Your task to perform on an android device: Go to Yahoo.com Image 0: 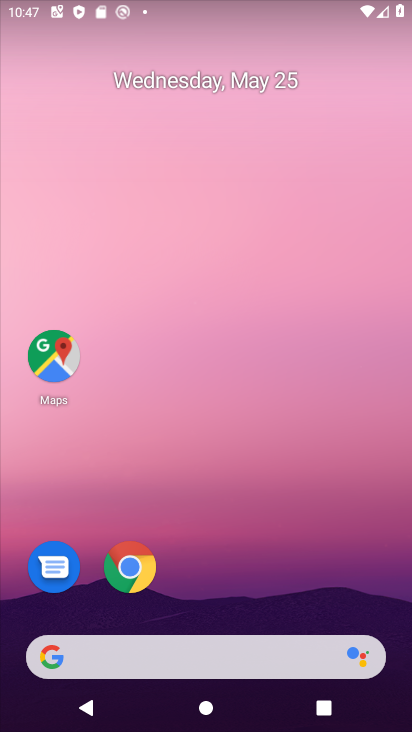
Step 0: drag from (260, 691) to (152, 137)
Your task to perform on an android device: Go to Yahoo.com Image 1: 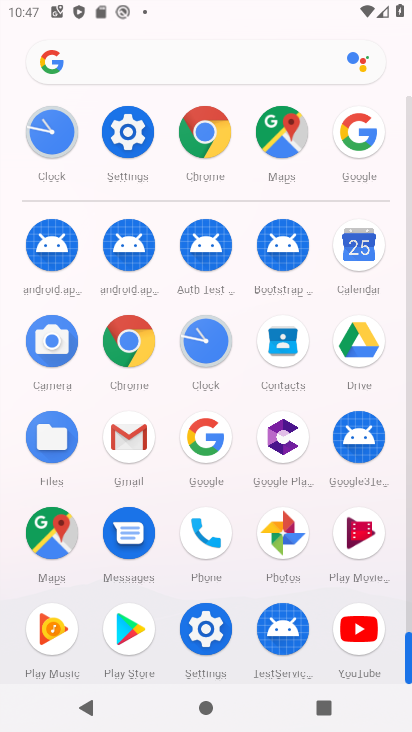
Step 1: click (205, 131)
Your task to perform on an android device: Go to Yahoo.com Image 2: 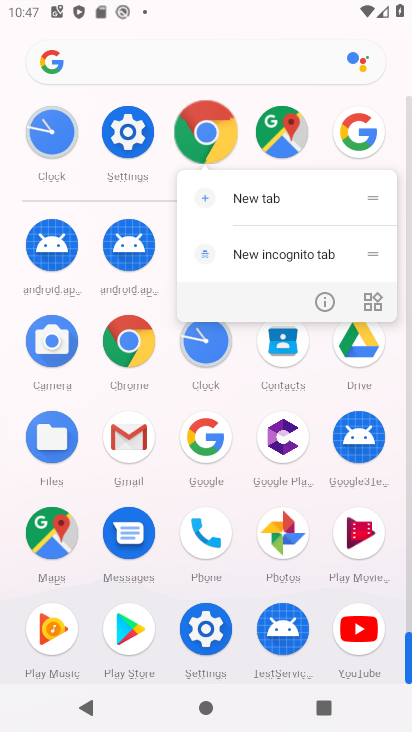
Step 2: click (203, 129)
Your task to perform on an android device: Go to Yahoo.com Image 3: 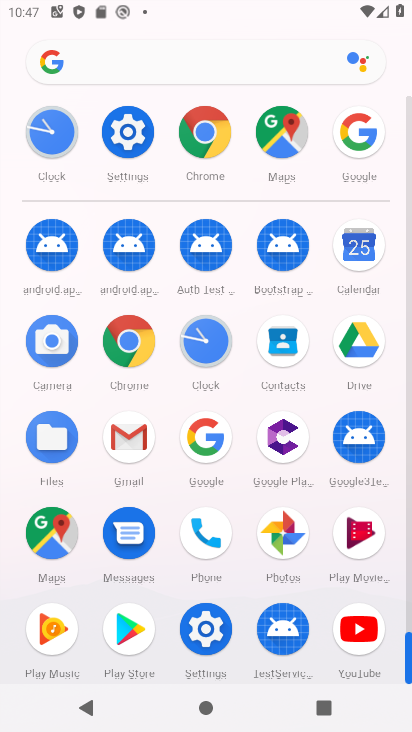
Step 3: click (204, 128)
Your task to perform on an android device: Go to Yahoo.com Image 4: 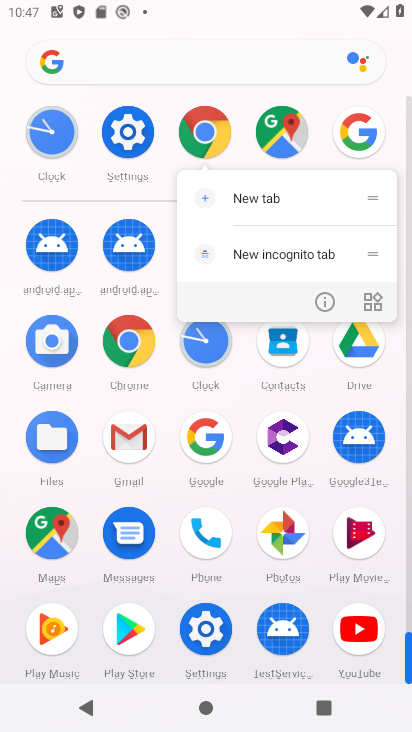
Step 4: click (200, 151)
Your task to perform on an android device: Go to Yahoo.com Image 5: 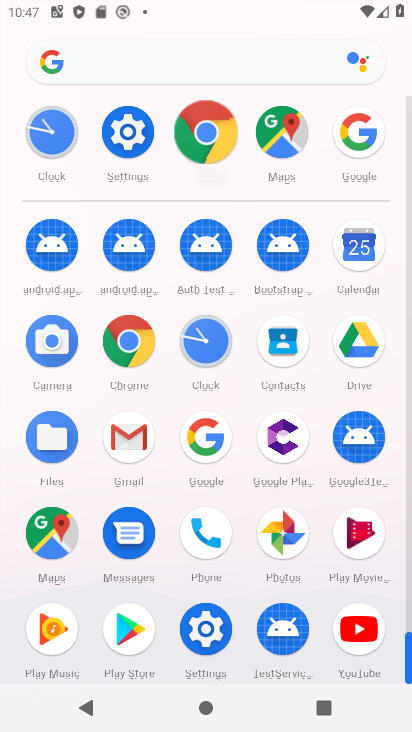
Step 5: click (203, 140)
Your task to perform on an android device: Go to Yahoo.com Image 6: 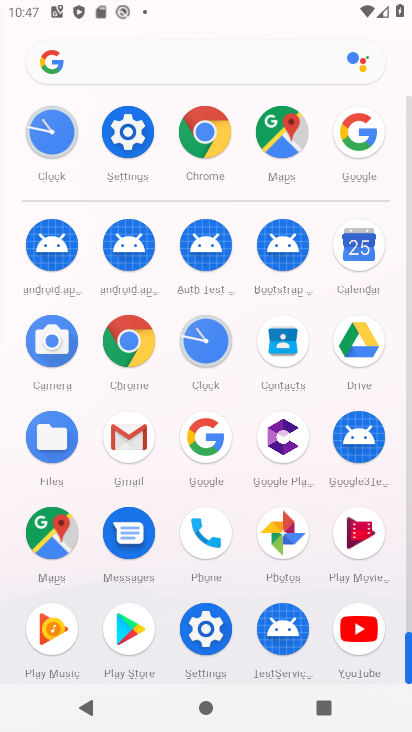
Step 6: click (202, 138)
Your task to perform on an android device: Go to Yahoo.com Image 7: 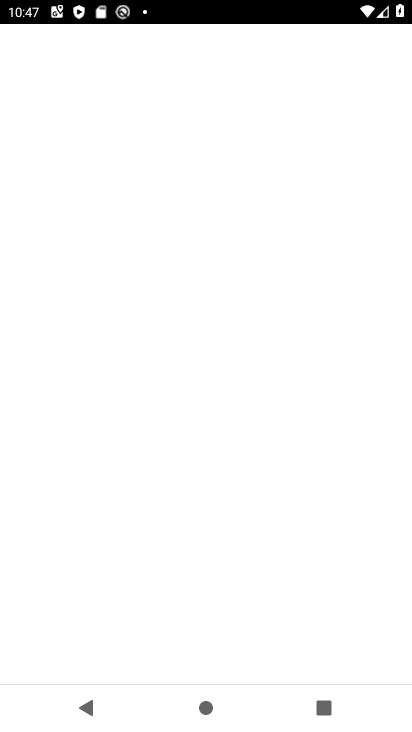
Step 7: click (211, 143)
Your task to perform on an android device: Go to Yahoo.com Image 8: 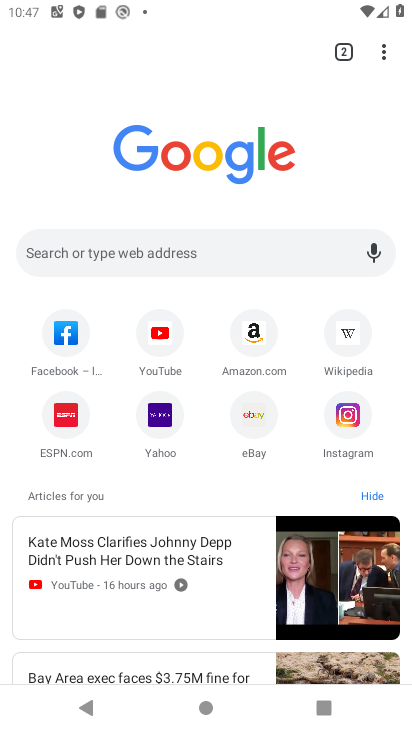
Step 8: click (155, 411)
Your task to perform on an android device: Go to Yahoo.com Image 9: 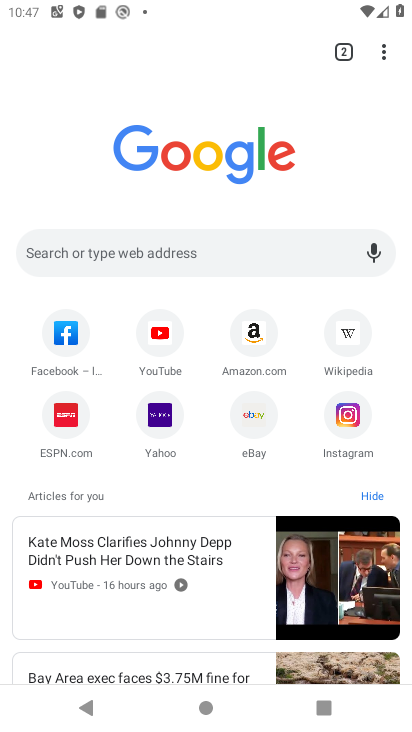
Step 9: click (155, 411)
Your task to perform on an android device: Go to Yahoo.com Image 10: 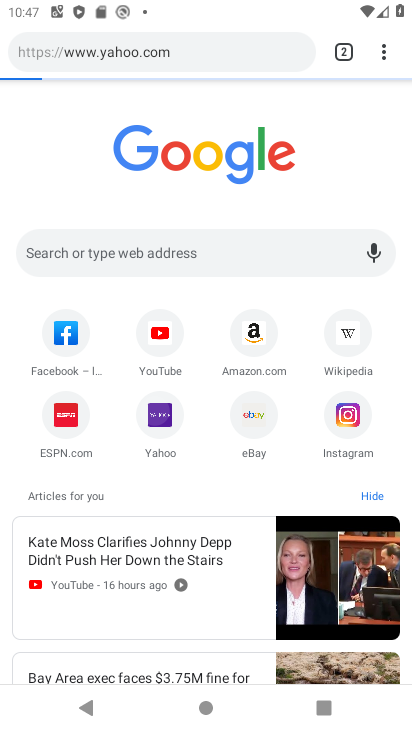
Step 10: click (155, 411)
Your task to perform on an android device: Go to Yahoo.com Image 11: 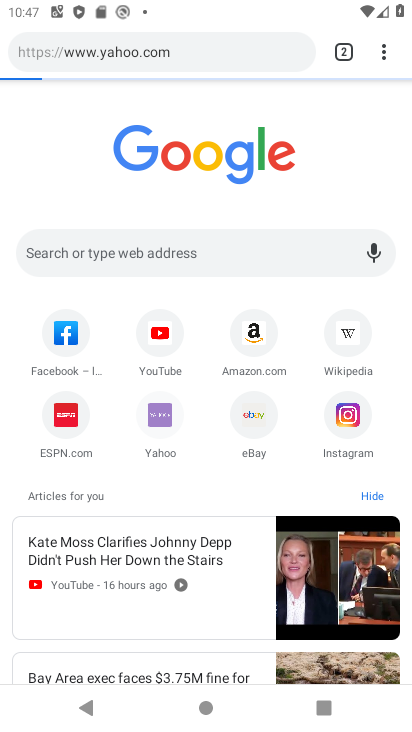
Step 11: click (155, 411)
Your task to perform on an android device: Go to Yahoo.com Image 12: 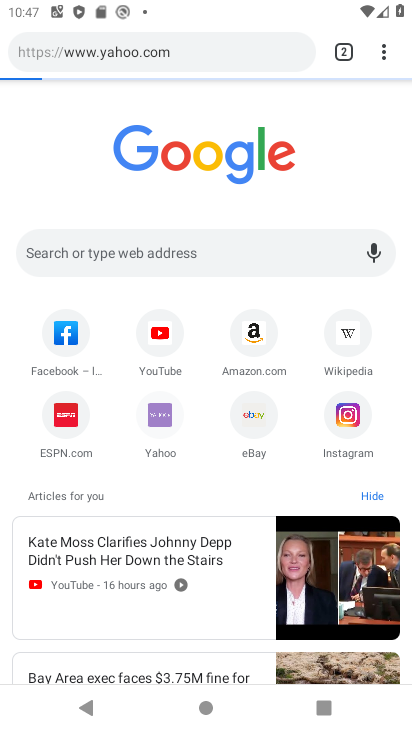
Step 12: click (155, 411)
Your task to perform on an android device: Go to Yahoo.com Image 13: 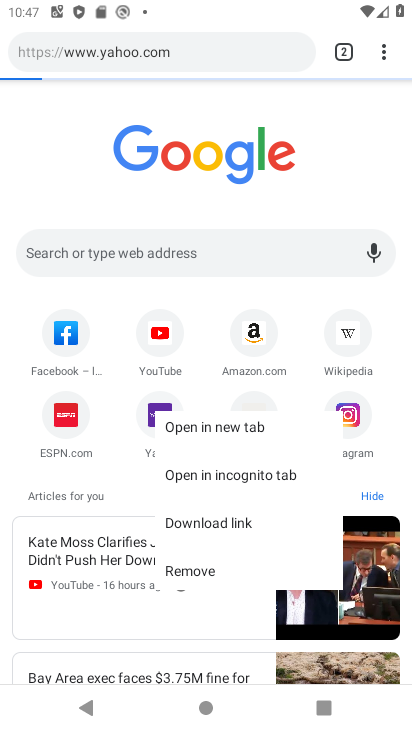
Step 13: click (155, 411)
Your task to perform on an android device: Go to Yahoo.com Image 14: 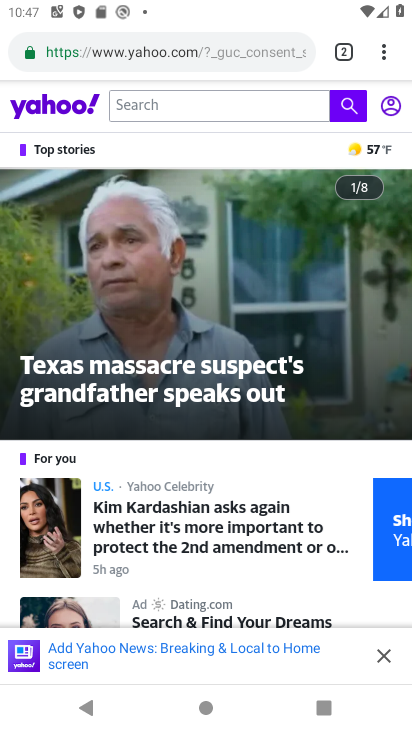
Step 14: task complete